Your task to perform on an android device: uninstall "Viber Messenger" Image 0: 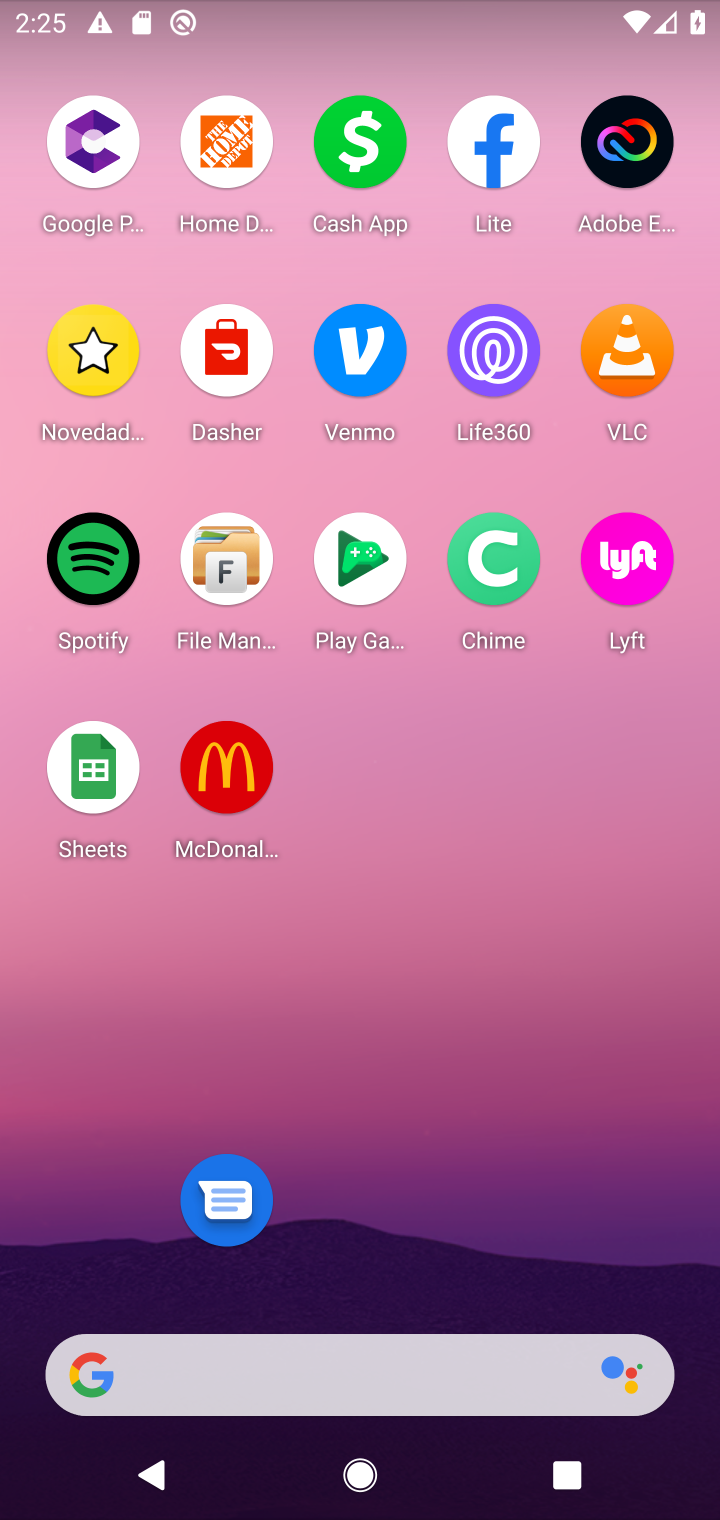
Step 0: drag from (523, 857) to (545, 73)
Your task to perform on an android device: uninstall "Viber Messenger" Image 1: 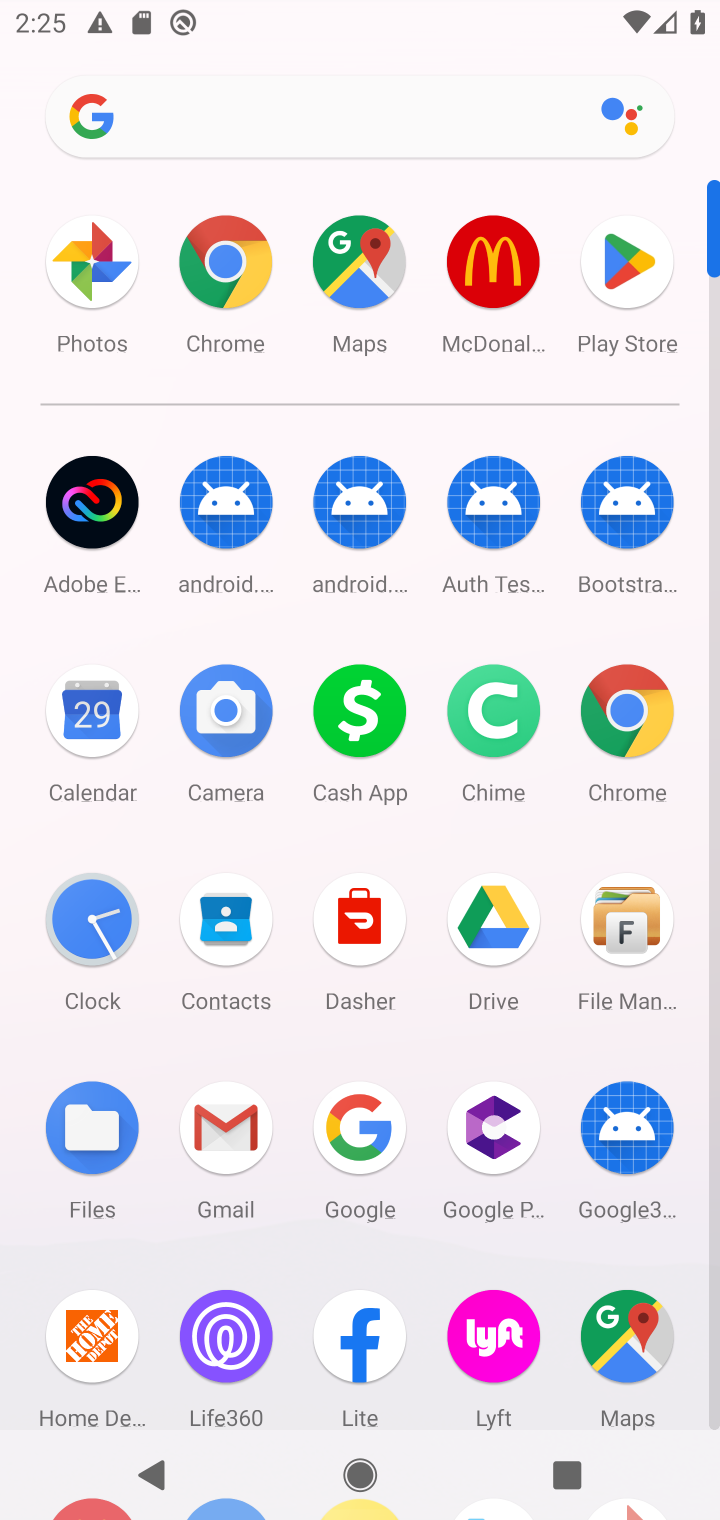
Step 1: click (616, 270)
Your task to perform on an android device: uninstall "Viber Messenger" Image 2: 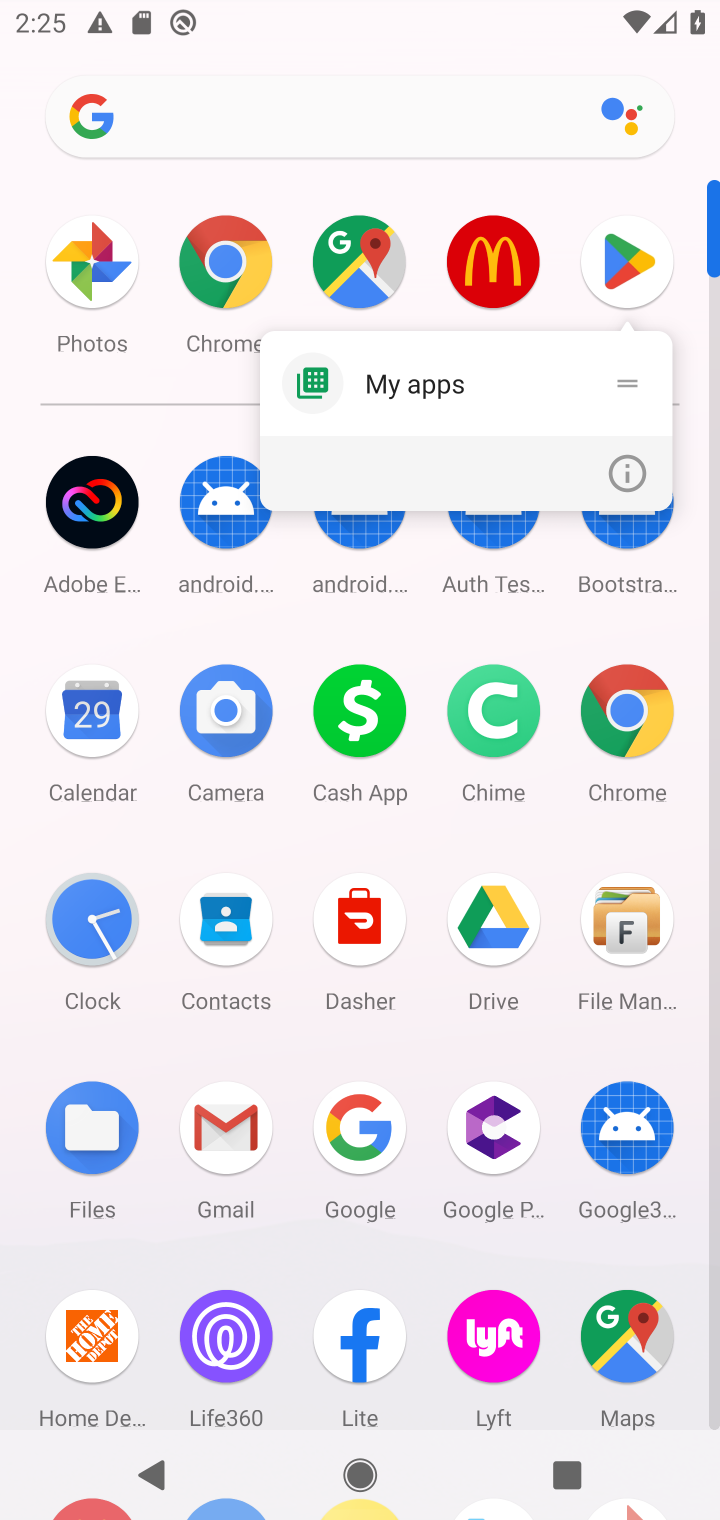
Step 2: click (618, 267)
Your task to perform on an android device: uninstall "Viber Messenger" Image 3: 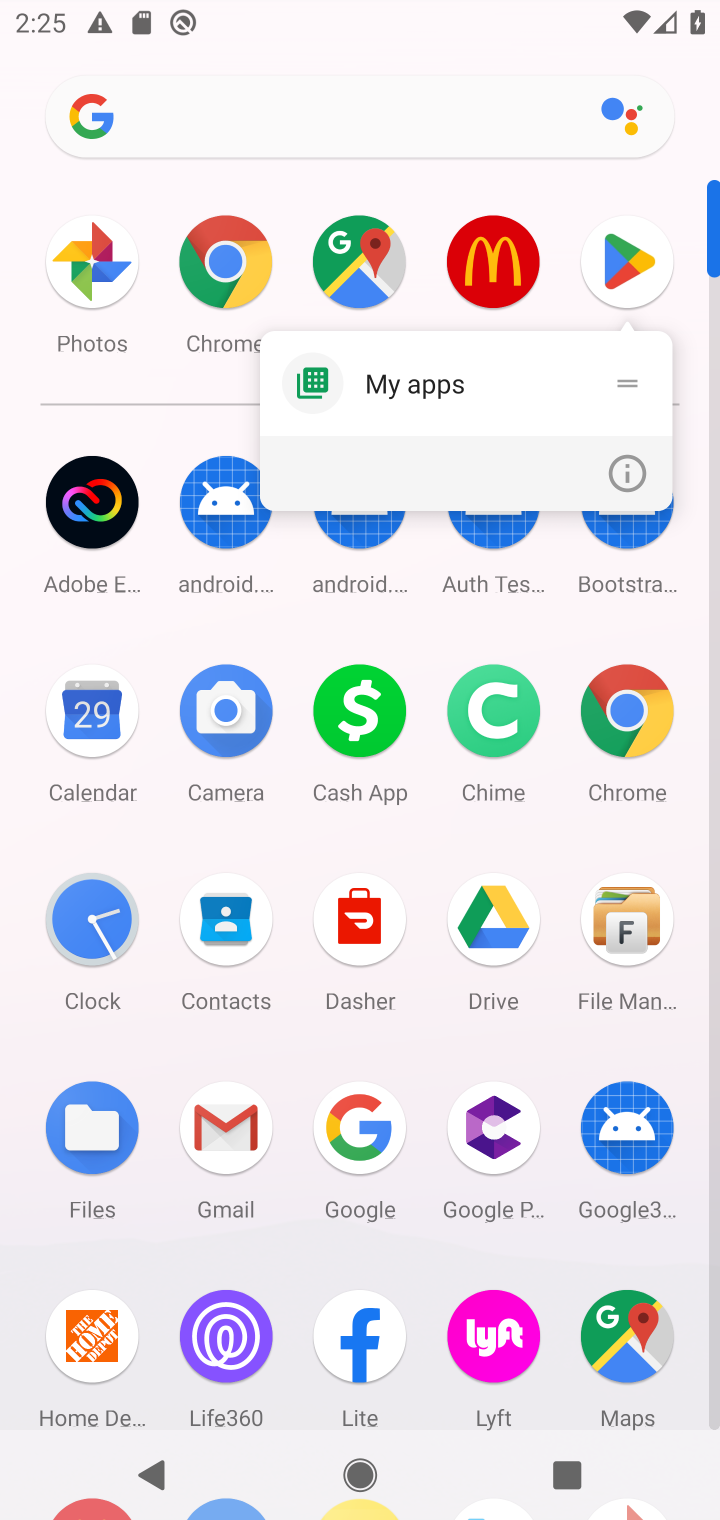
Step 3: click (684, 199)
Your task to perform on an android device: uninstall "Viber Messenger" Image 4: 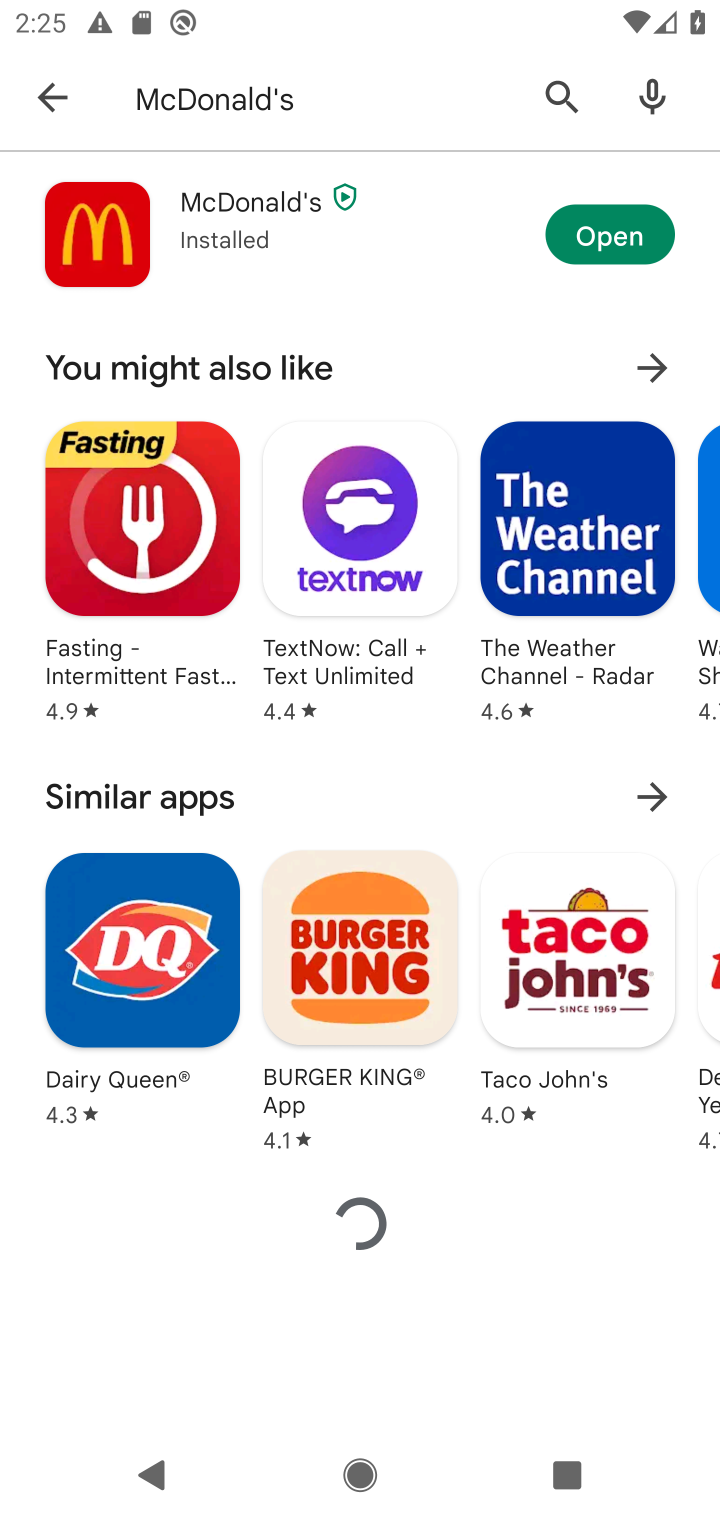
Step 4: click (415, 92)
Your task to perform on an android device: uninstall "Viber Messenger" Image 5: 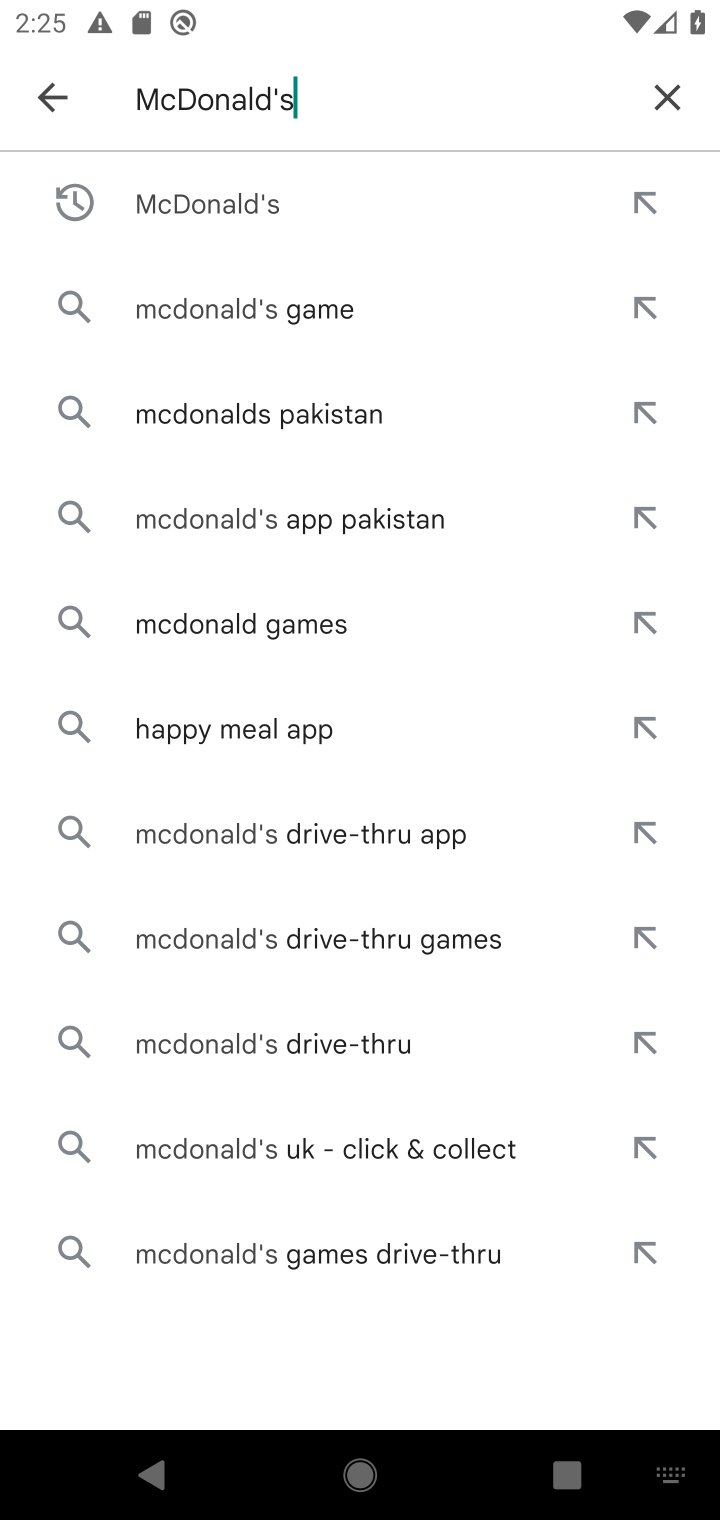
Step 5: click (666, 93)
Your task to perform on an android device: uninstall "Viber Messenger" Image 6: 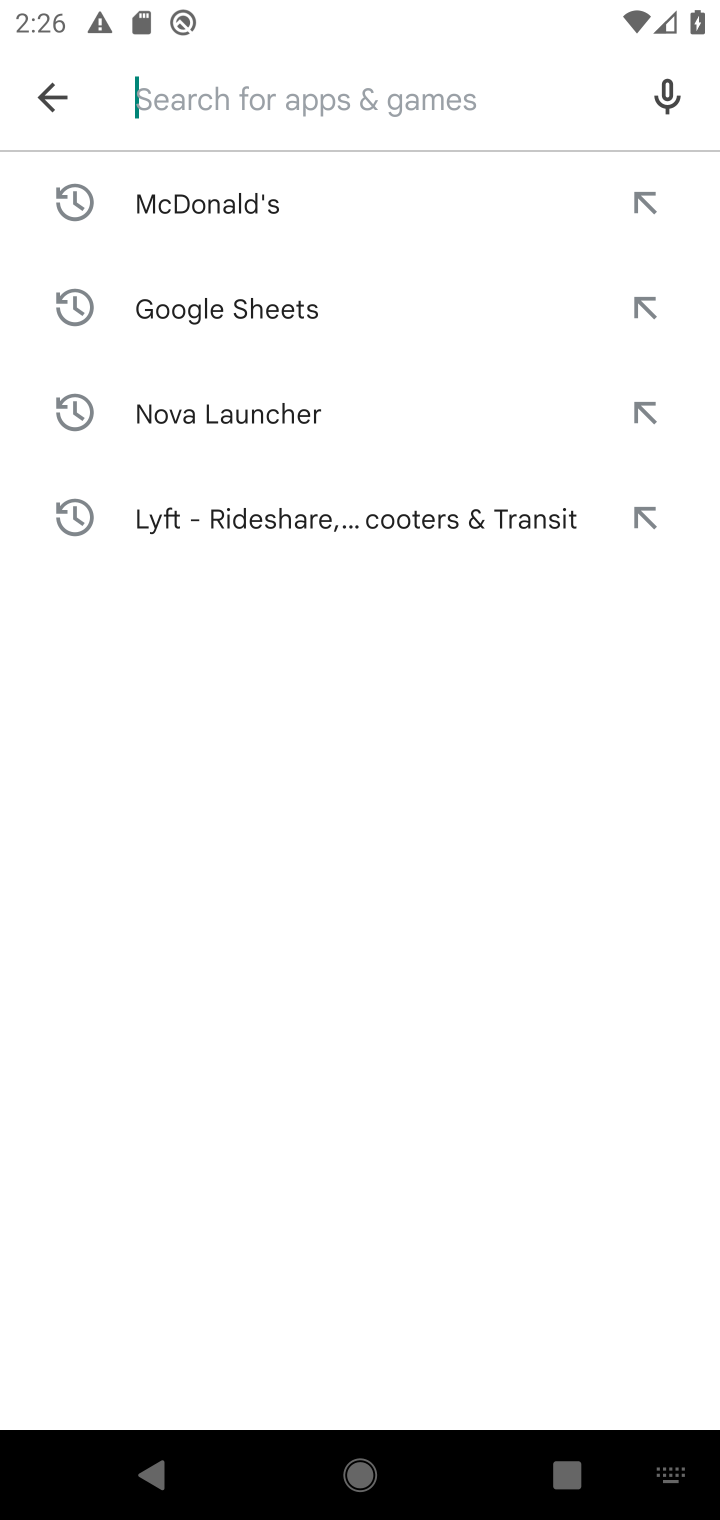
Step 6: type "Viber Messenger"
Your task to perform on an android device: uninstall "Viber Messenger" Image 7: 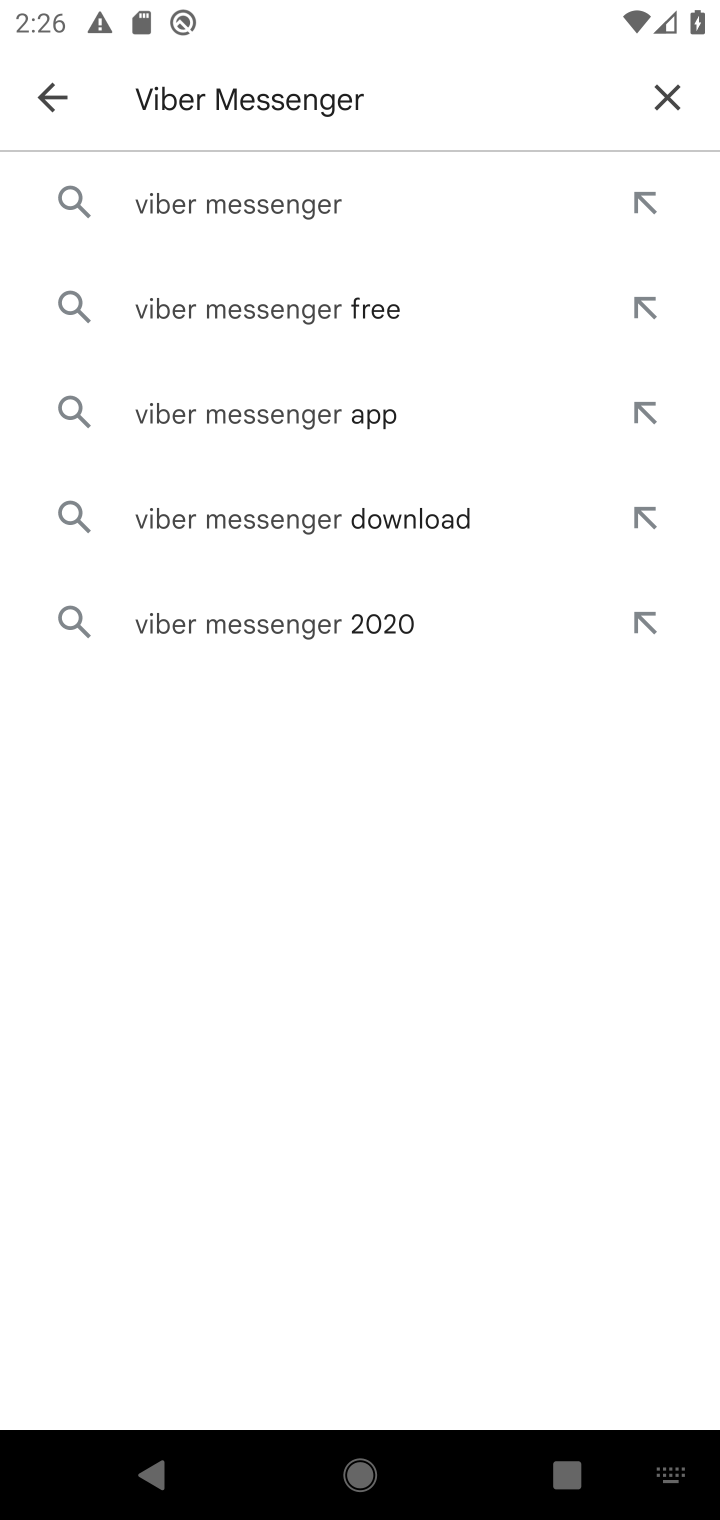
Step 7: press enter
Your task to perform on an android device: uninstall "Viber Messenger" Image 8: 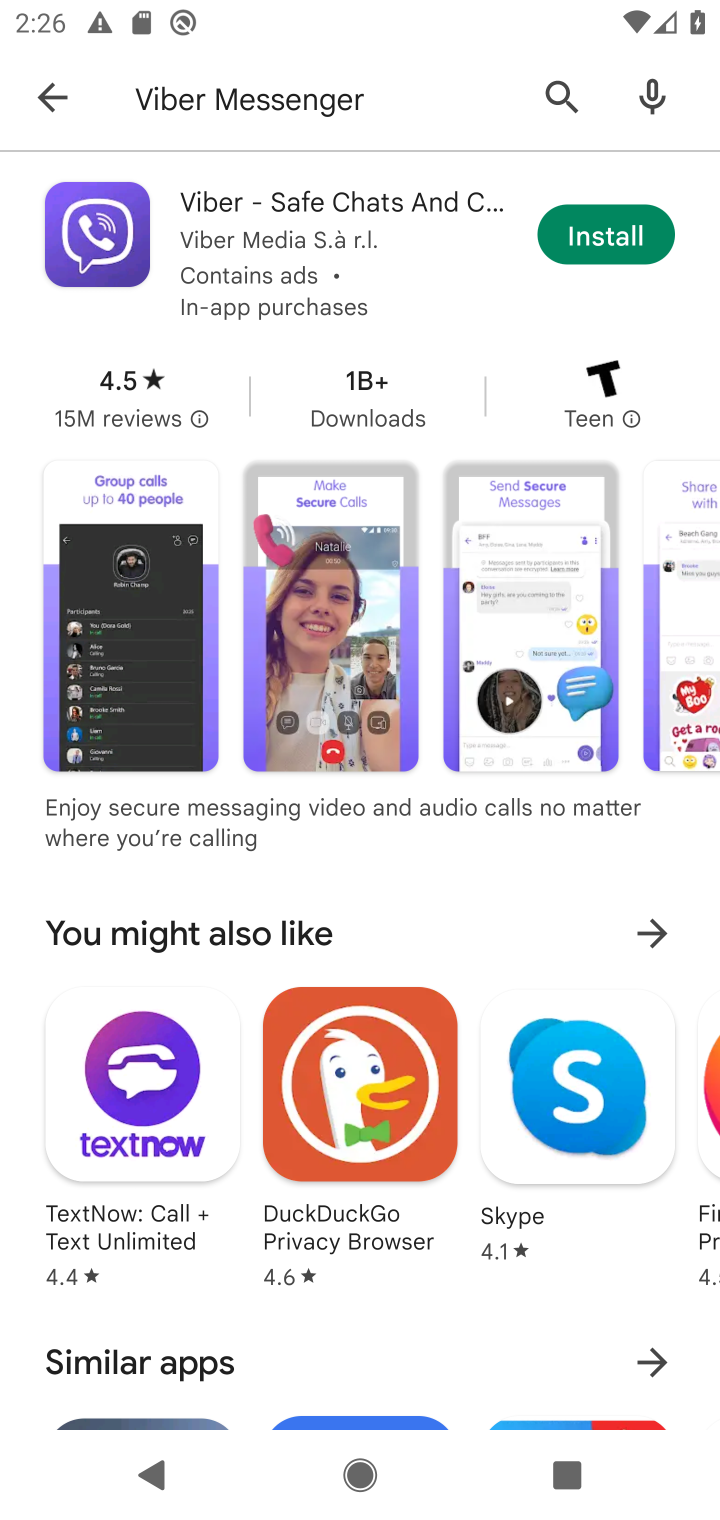
Step 8: task complete